Your task to perform on an android device: Open display settings Image 0: 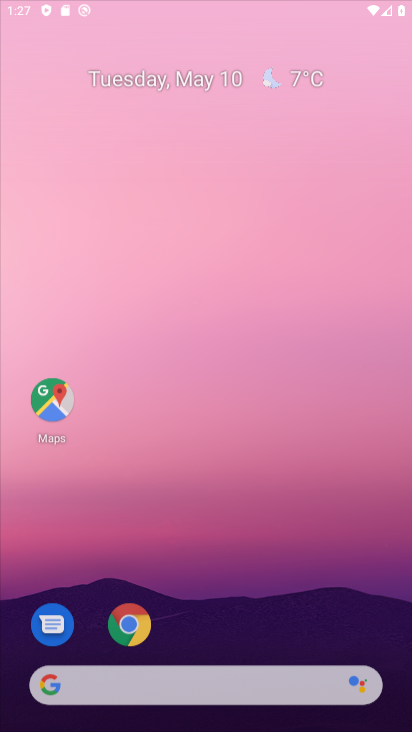
Step 0: click (309, 86)
Your task to perform on an android device: Open display settings Image 1: 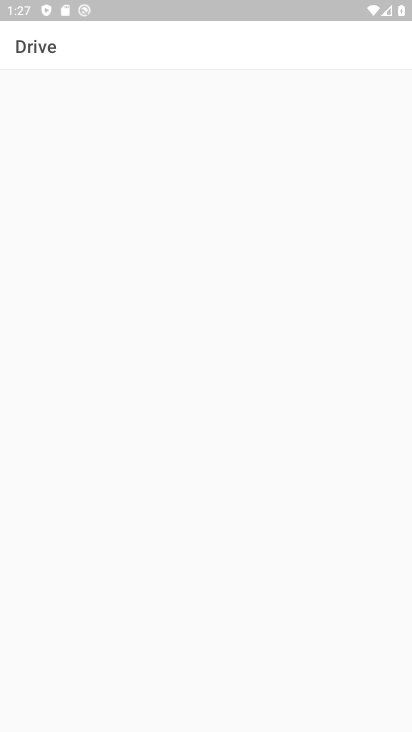
Step 1: press home button
Your task to perform on an android device: Open display settings Image 2: 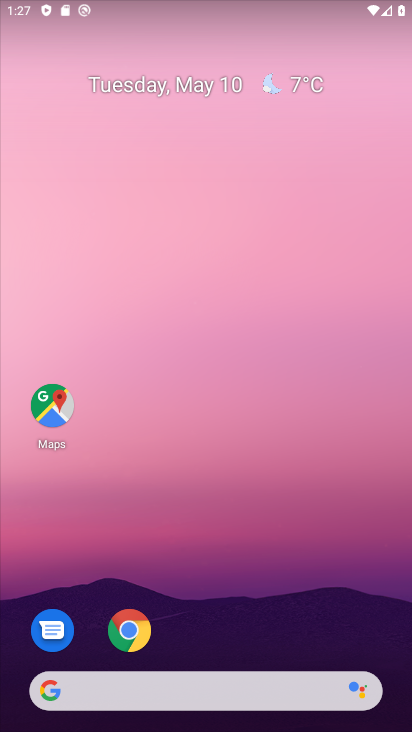
Step 2: drag from (217, 693) to (153, 108)
Your task to perform on an android device: Open display settings Image 3: 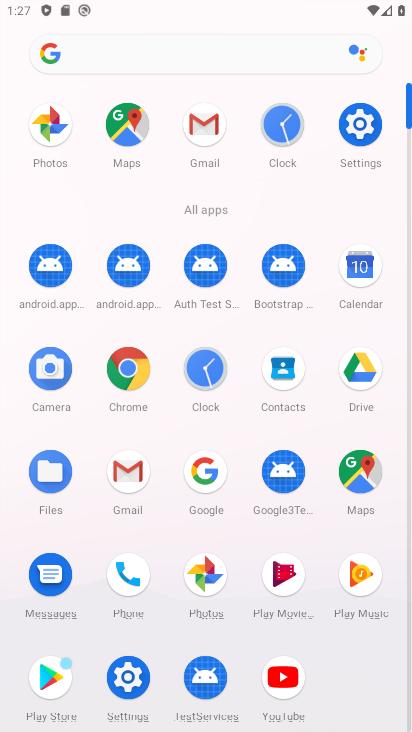
Step 3: click (372, 135)
Your task to perform on an android device: Open display settings Image 4: 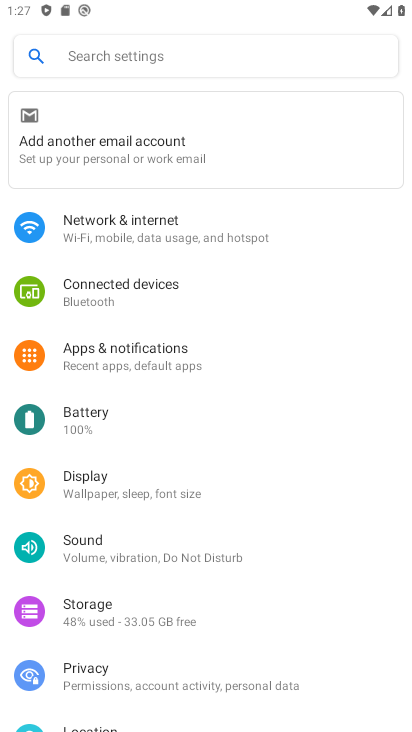
Step 4: click (96, 488)
Your task to perform on an android device: Open display settings Image 5: 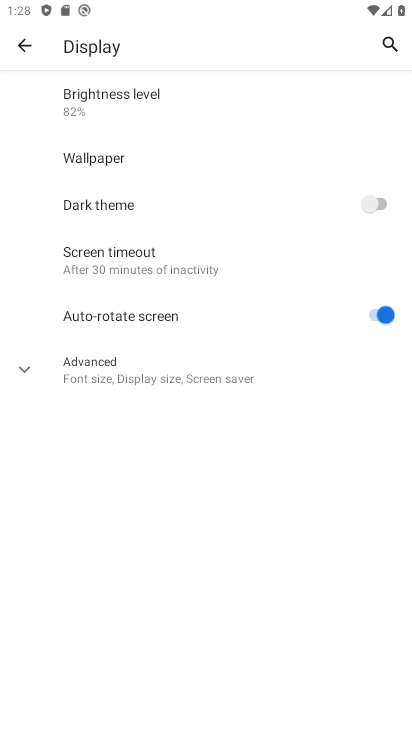
Step 5: task complete